Your task to perform on an android device: open app "Facebook Lite" (install if not already installed) Image 0: 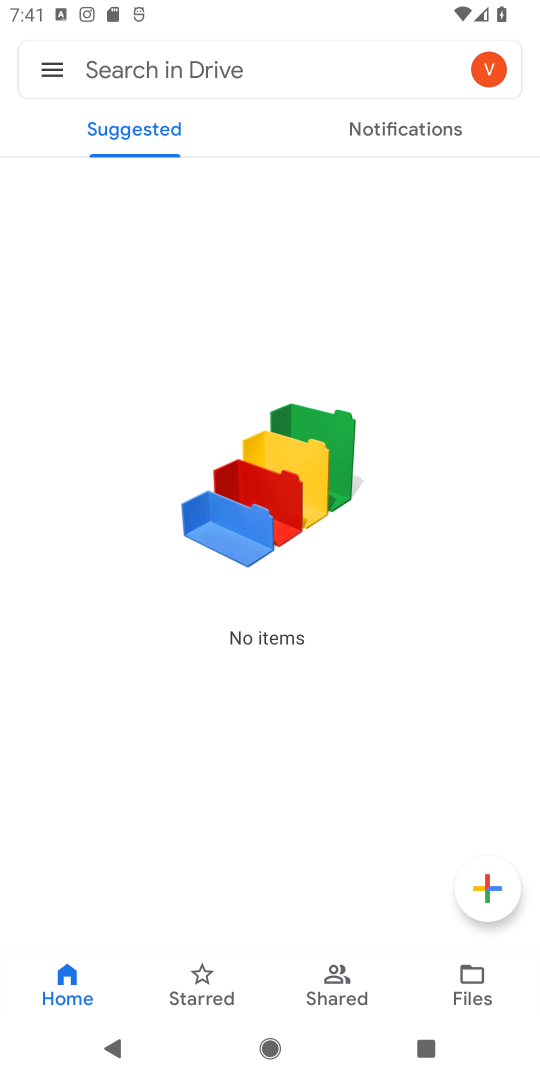
Step 0: press home button
Your task to perform on an android device: open app "Facebook Lite" (install if not already installed) Image 1: 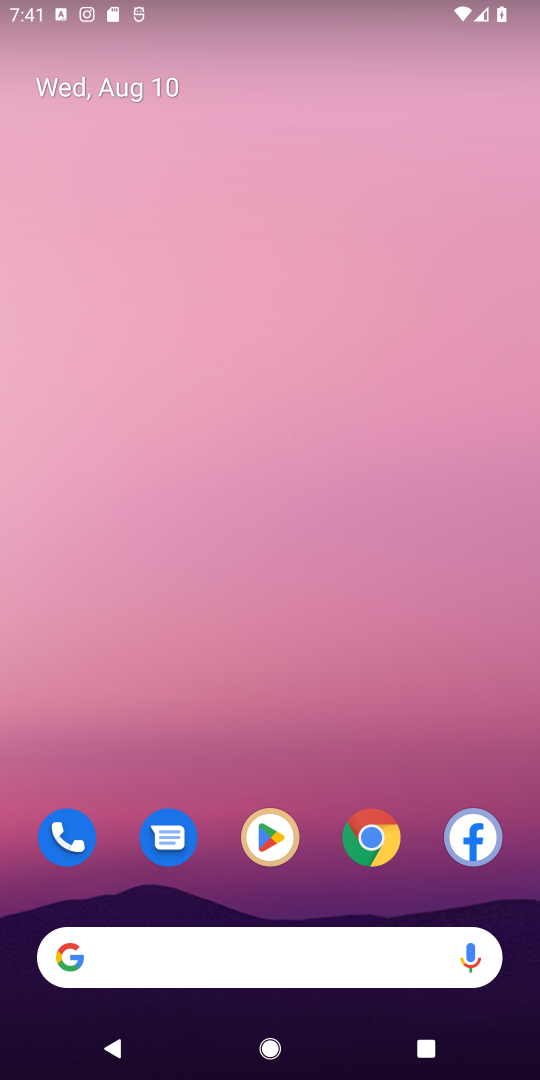
Step 1: click (270, 842)
Your task to perform on an android device: open app "Facebook Lite" (install if not already installed) Image 2: 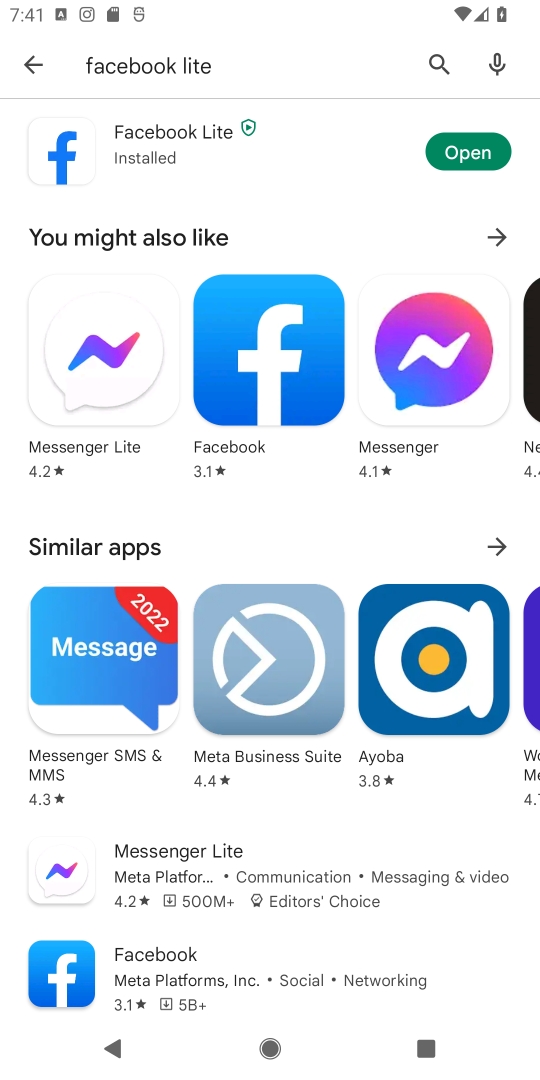
Step 2: click (432, 60)
Your task to perform on an android device: open app "Facebook Lite" (install if not already installed) Image 3: 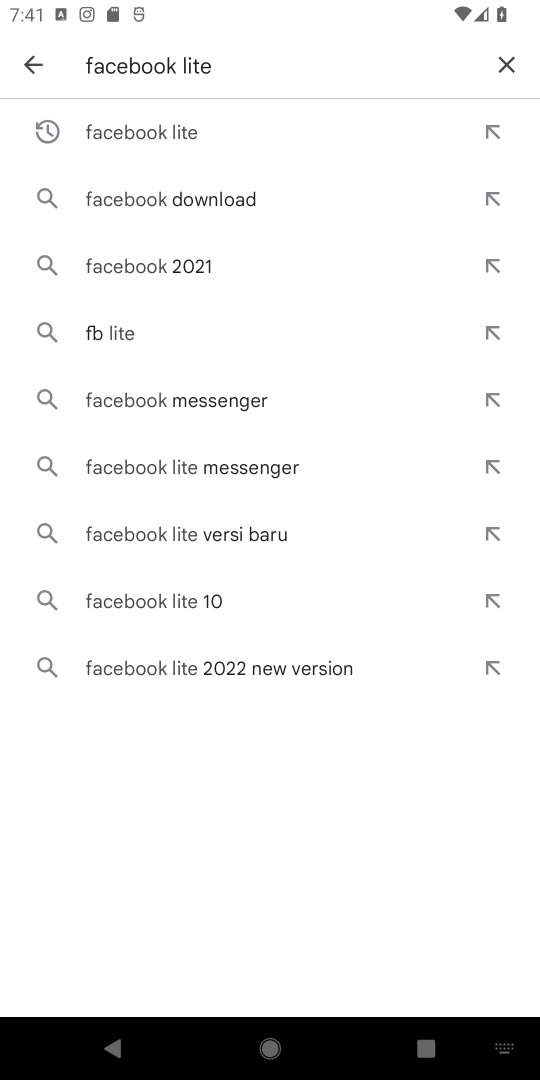
Step 3: click (506, 56)
Your task to perform on an android device: open app "Facebook Lite" (install if not already installed) Image 4: 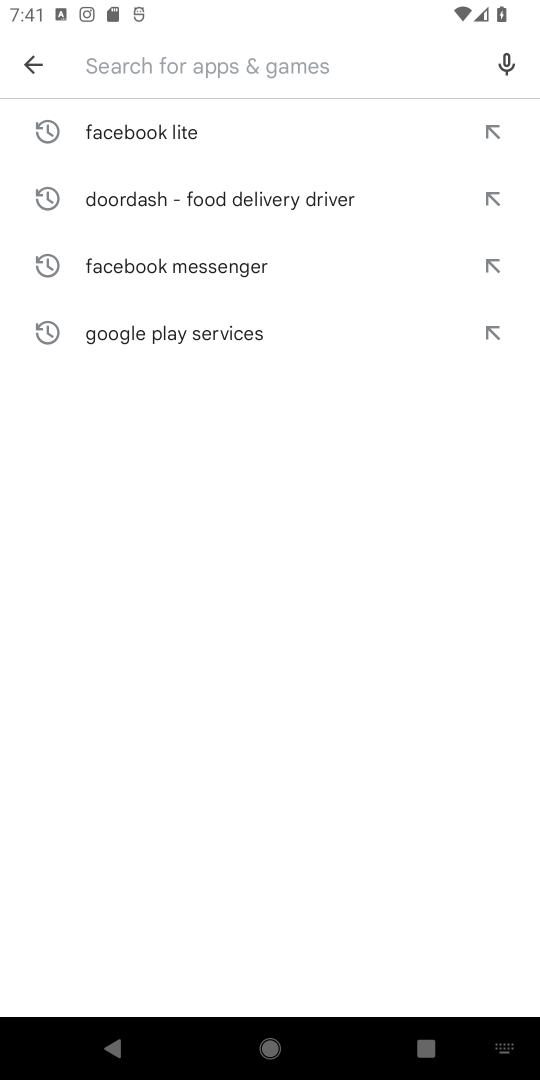
Step 4: type "Facebook Lite"
Your task to perform on an android device: open app "Facebook Lite" (install if not already installed) Image 5: 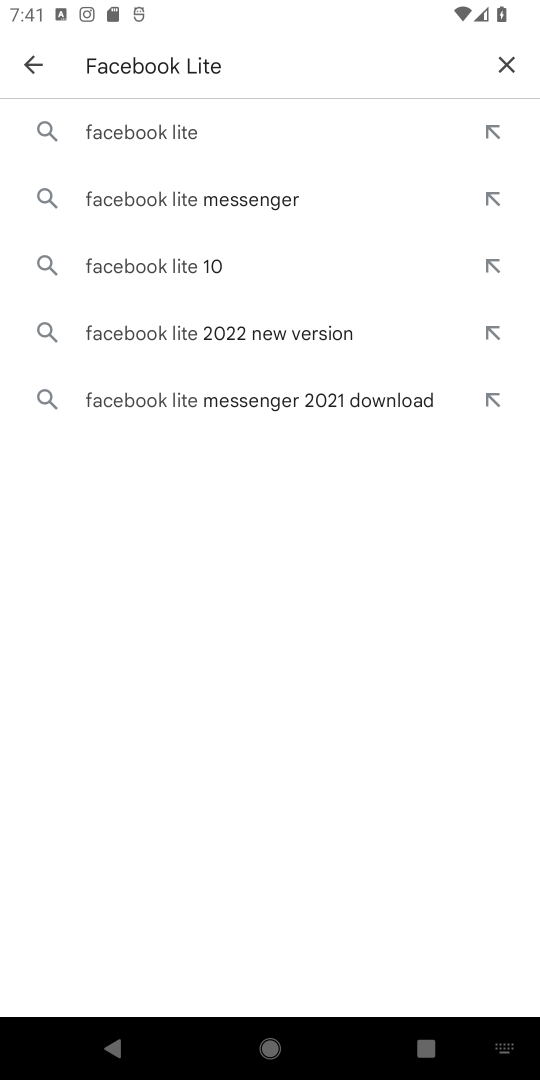
Step 5: click (170, 136)
Your task to perform on an android device: open app "Facebook Lite" (install if not already installed) Image 6: 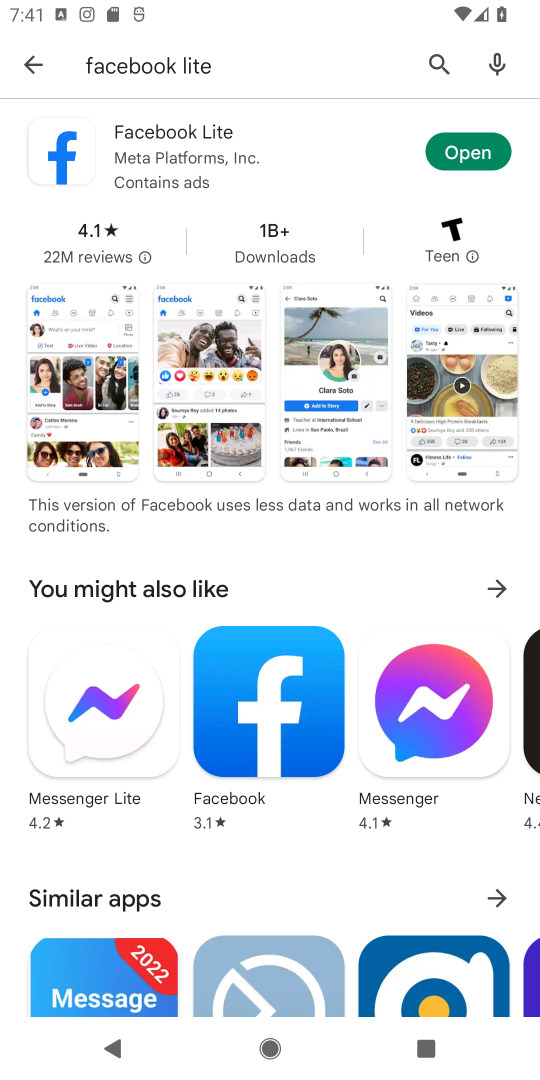
Step 6: click (468, 151)
Your task to perform on an android device: open app "Facebook Lite" (install if not already installed) Image 7: 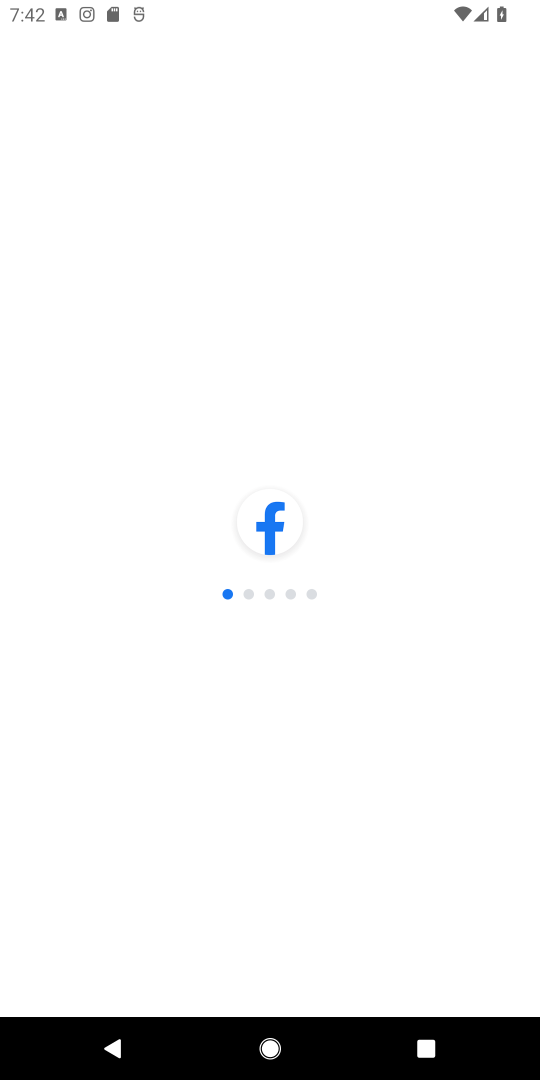
Step 7: task complete